Your task to perform on an android device: Go to notification settings Image 0: 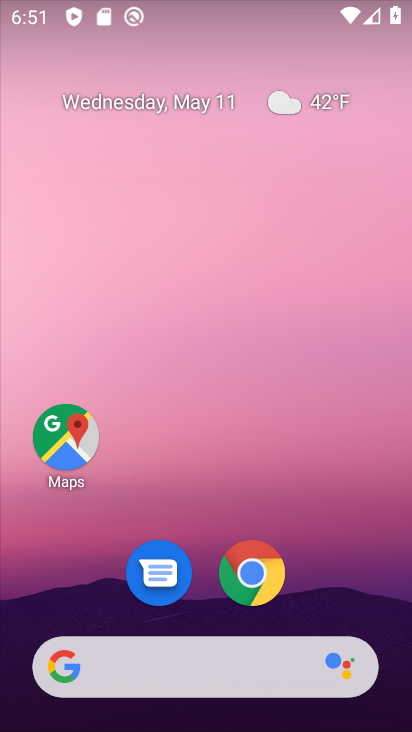
Step 0: drag from (308, 582) to (325, 212)
Your task to perform on an android device: Go to notification settings Image 1: 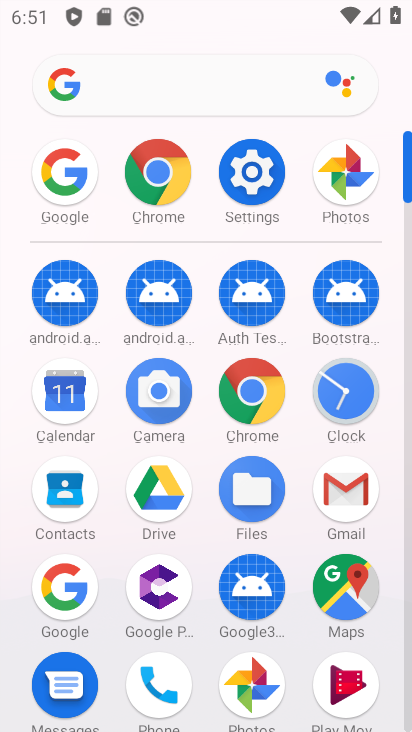
Step 1: click (245, 212)
Your task to perform on an android device: Go to notification settings Image 2: 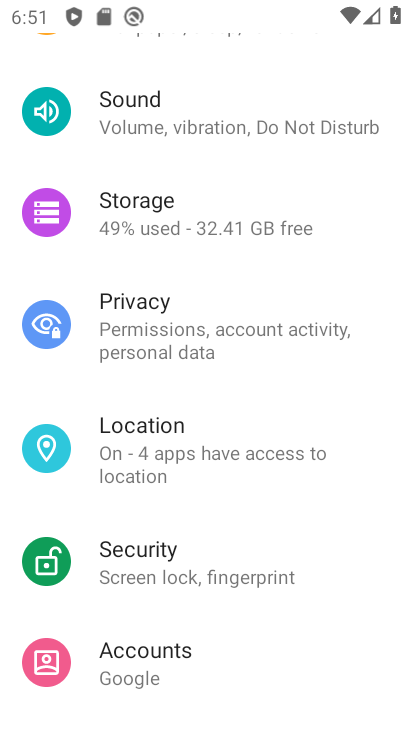
Step 2: drag from (258, 606) to (255, 277)
Your task to perform on an android device: Go to notification settings Image 3: 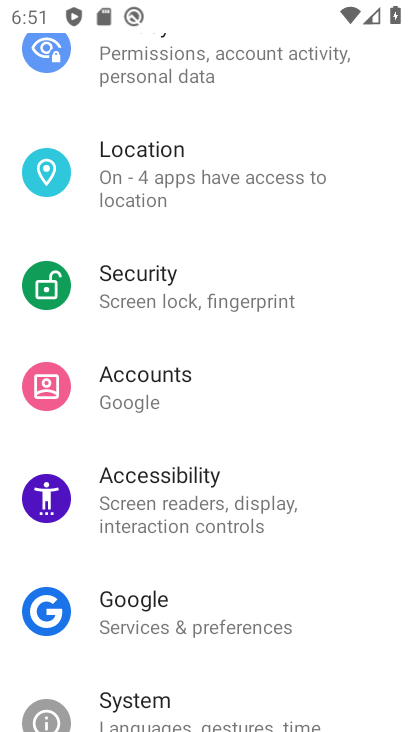
Step 3: drag from (240, 665) to (233, 319)
Your task to perform on an android device: Go to notification settings Image 4: 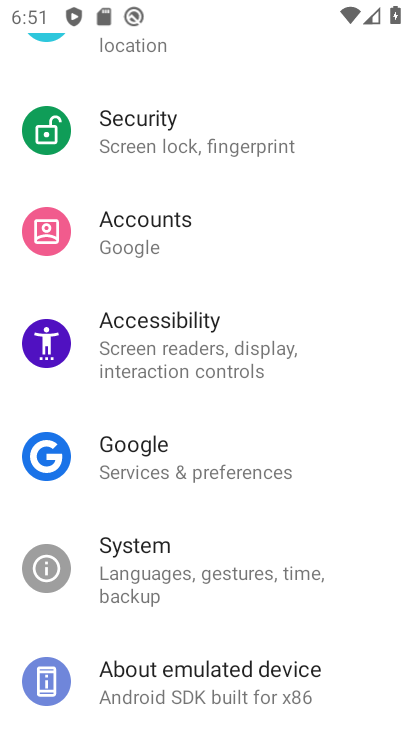
Step 4: drag from (250, 264) to (213, 539)
Your task to perform on an android device: Go to notification settings Image 5: 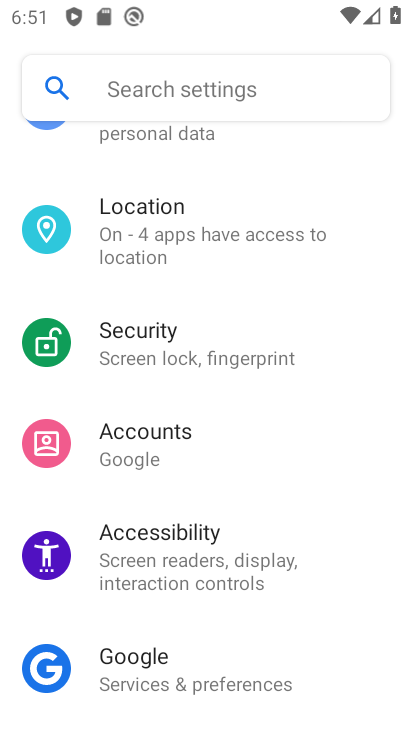
Step 5: click (240, 554)
Your task to perform on an android device: Go to notification settings Image 6: 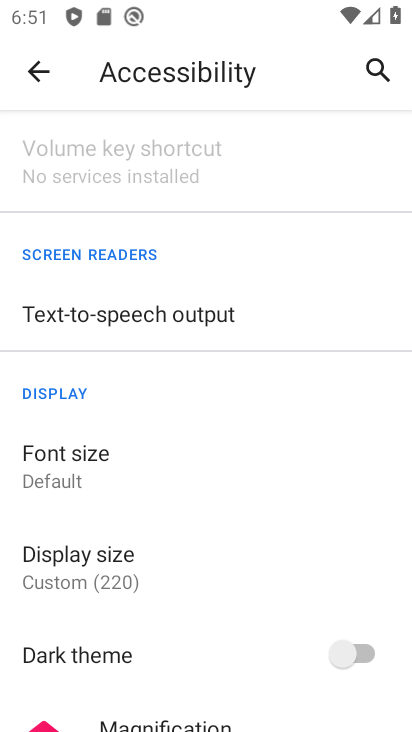
Step 6: press back button
Your task to perform on an android device: Go to notification settings Image 7: 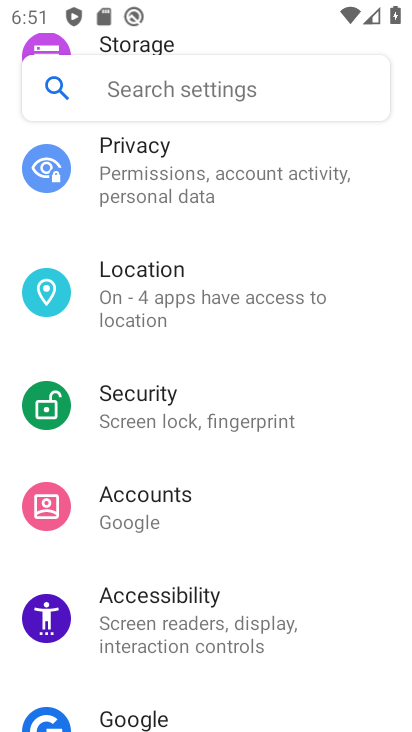
Step 7: drag from (231, 237) to (208, 622)
Your task to perform on an android device: Go to notification settings Image 8: 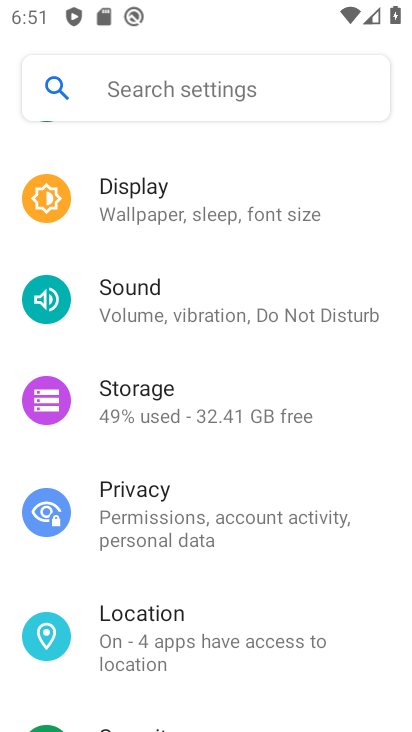
Step 8: drag from (194, 276) to (229, 518)
Your task to perform on an android device: Go to notification settings Image 9: 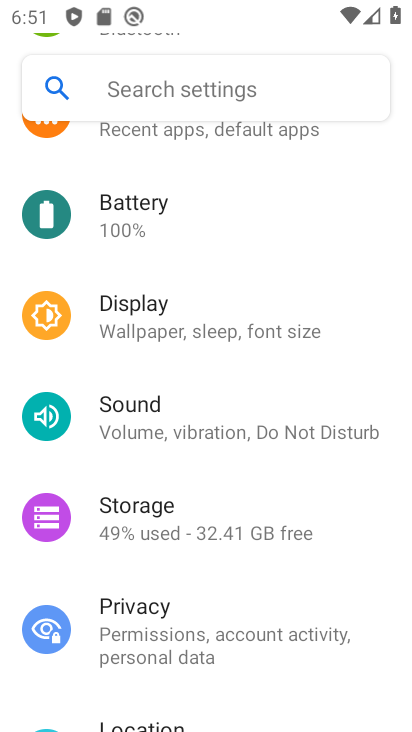
Step 9: drag from (226, 210) to (209, 535)
Your task to perform on an android device: Go to notification settings Image 10: 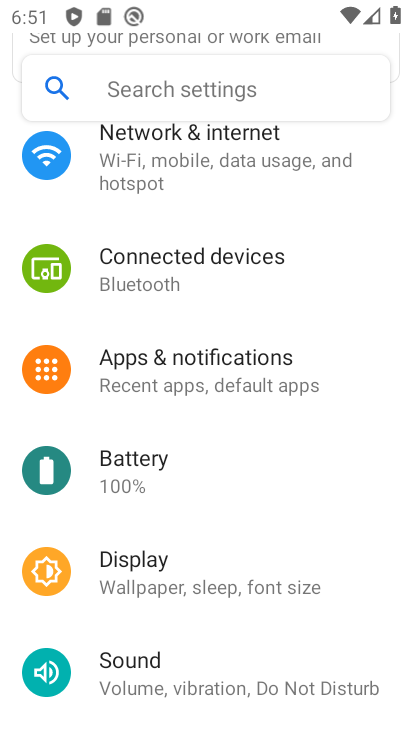
Step 10: click (182, 387)
Your task to perform on an android device: Go to notification settings Image 11: 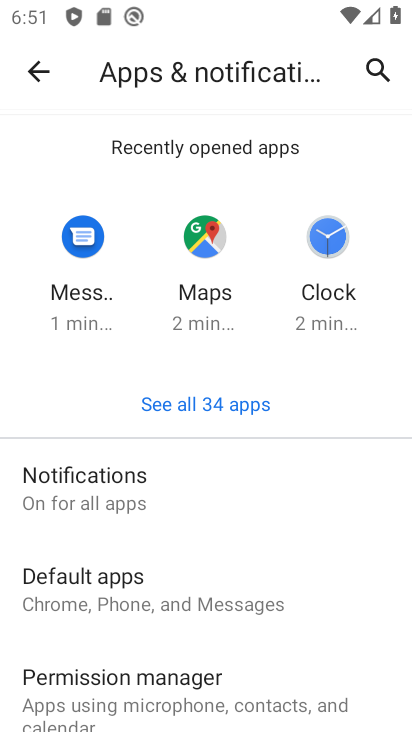
Step 11: click (83, 495)
Your task to perform on an android device: Go to notification settings Image 12: 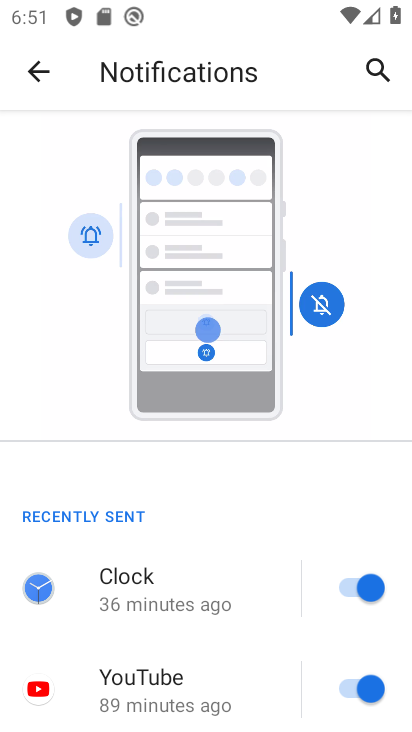
Step 12: task complete